Your task to perform on an android device: Open Youtube and go to "Your channel" Image 0: 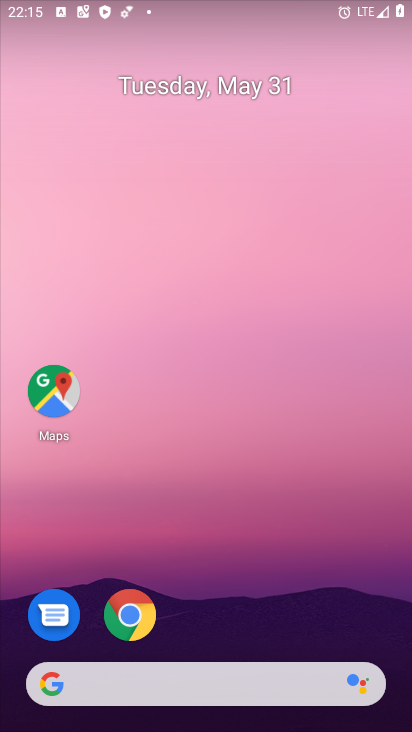
Step 0: drag from (356, 608) to (285, 104)
Your task to perform on an android device: Open Youtube and go to "Your channel" Image 1: 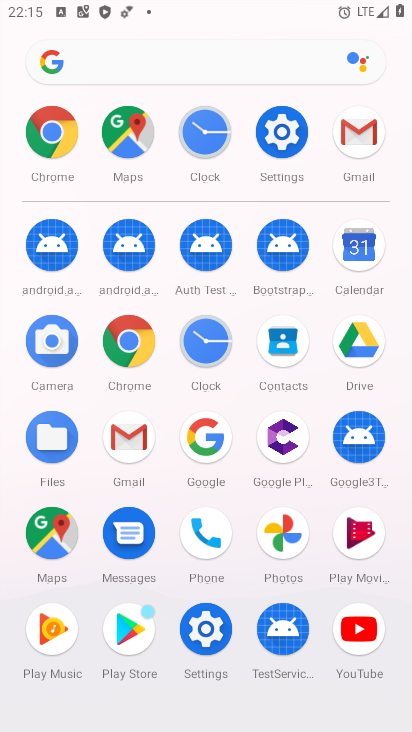
Step 1: click (354, 626)
Your task to perform on an android device: Open Youtube and go to "Your channel" Image 2: 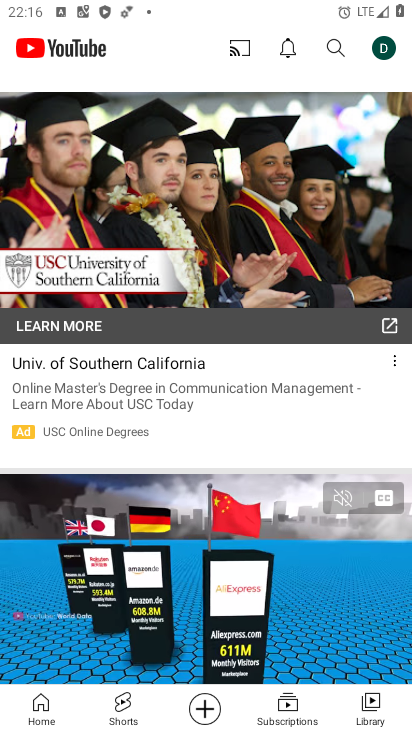
Step 2: click (383, 48)
Your task to perform on an android device: Open Youtube and go to "Your channel" Image 3: 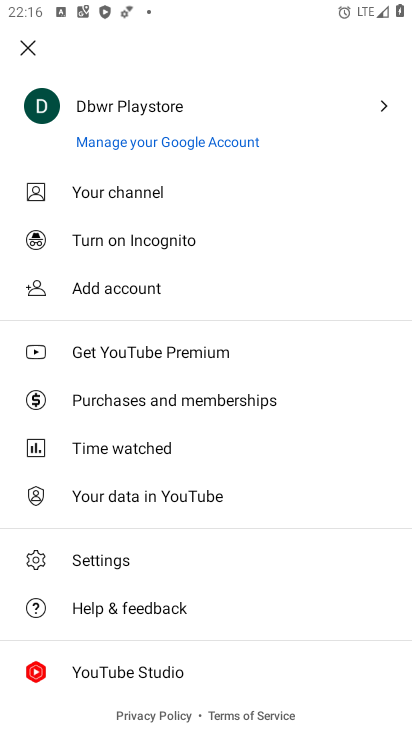
Step 3: click (110, 188)
Your task to perform on an android device: Open Youtube and go to "Your channel" Image 4: 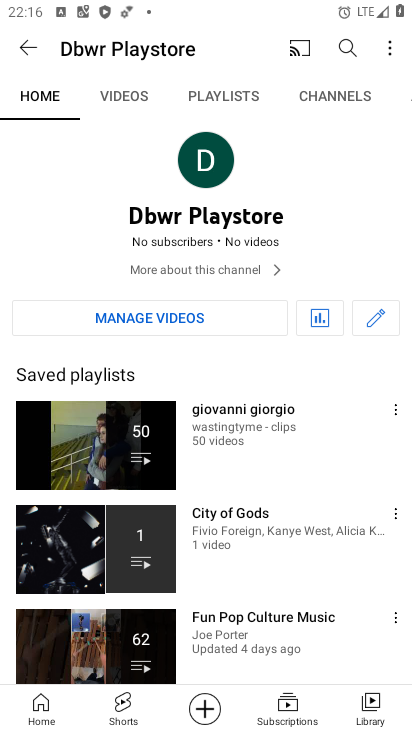
Step 4: task complete